Your task to perform on an android device: turn on the 24-hour format for clock Image 0: 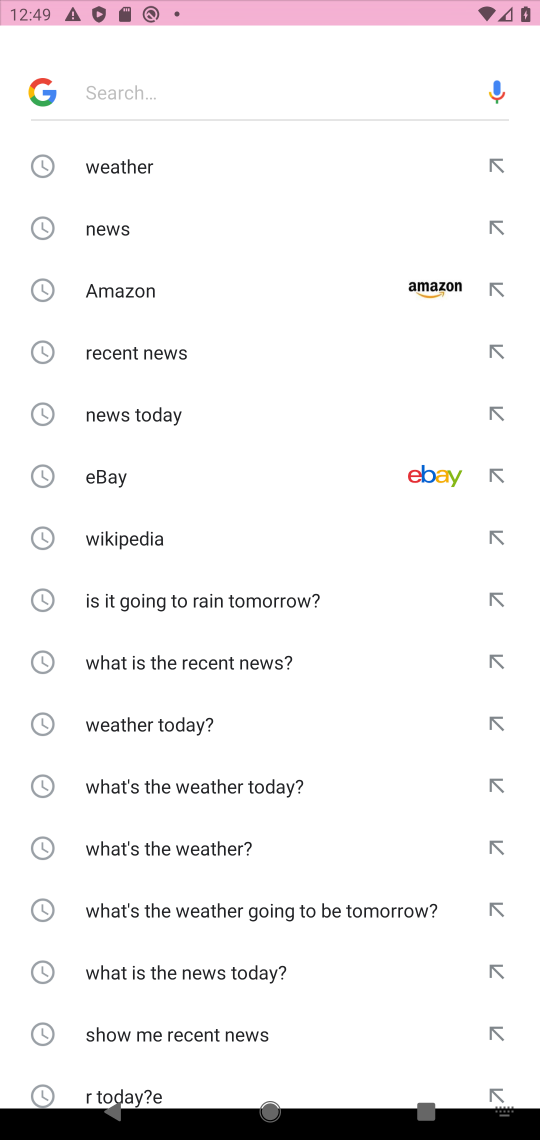
Step 0: press home button
Your task to perform on an android device: turn on the 24-hour format for clock Image 1: 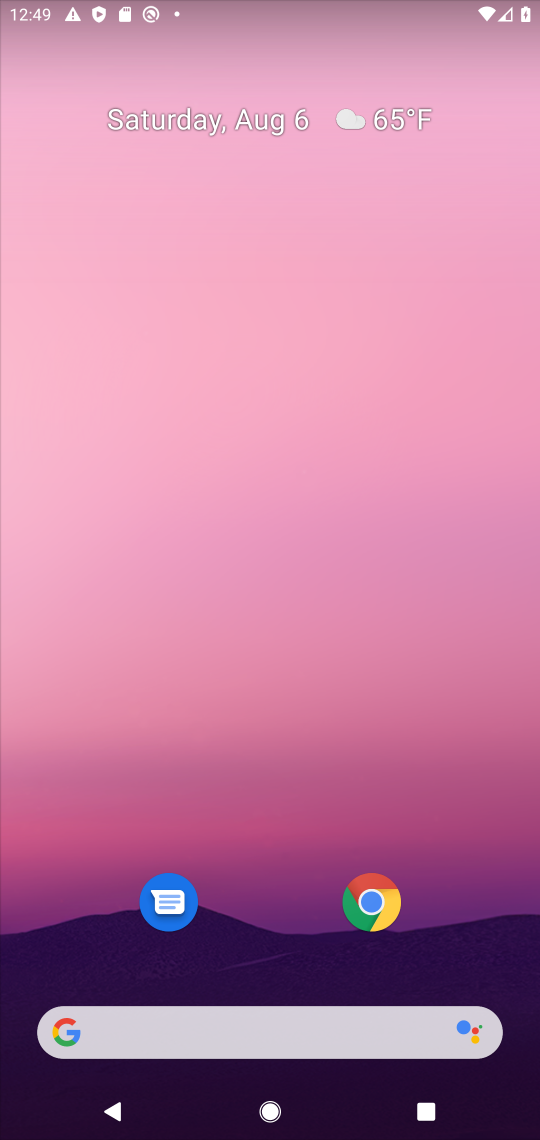
Step 1: click (255, 288)
Your task to perform on an android device: turn on the 24-hour format for clock Image 2: 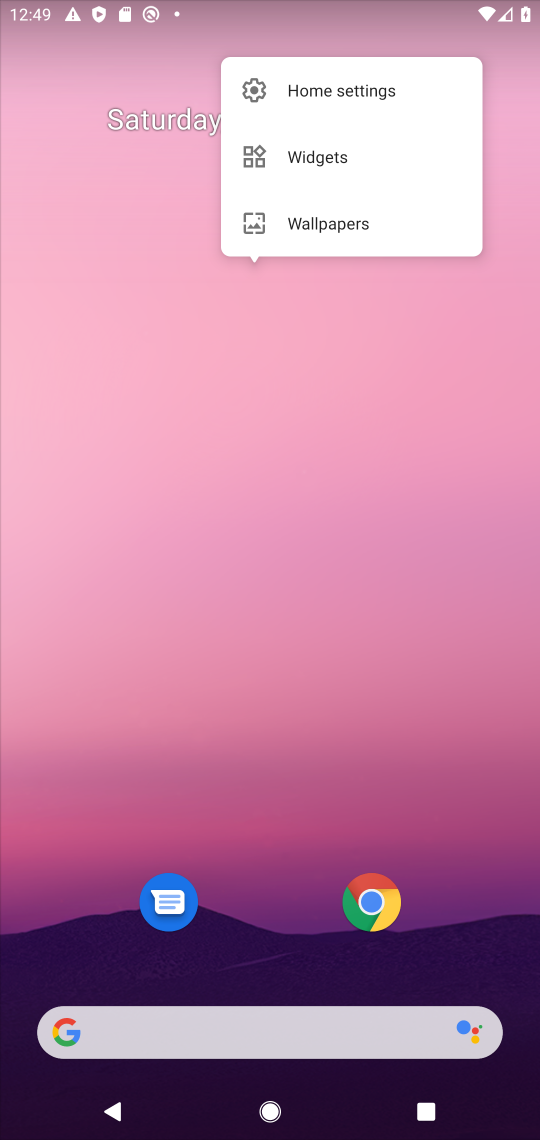
Step 2: drag from (243, 569) to (280, 205)
Your task to perform on an android device: turn on the 24-hour format for clock Image 3: 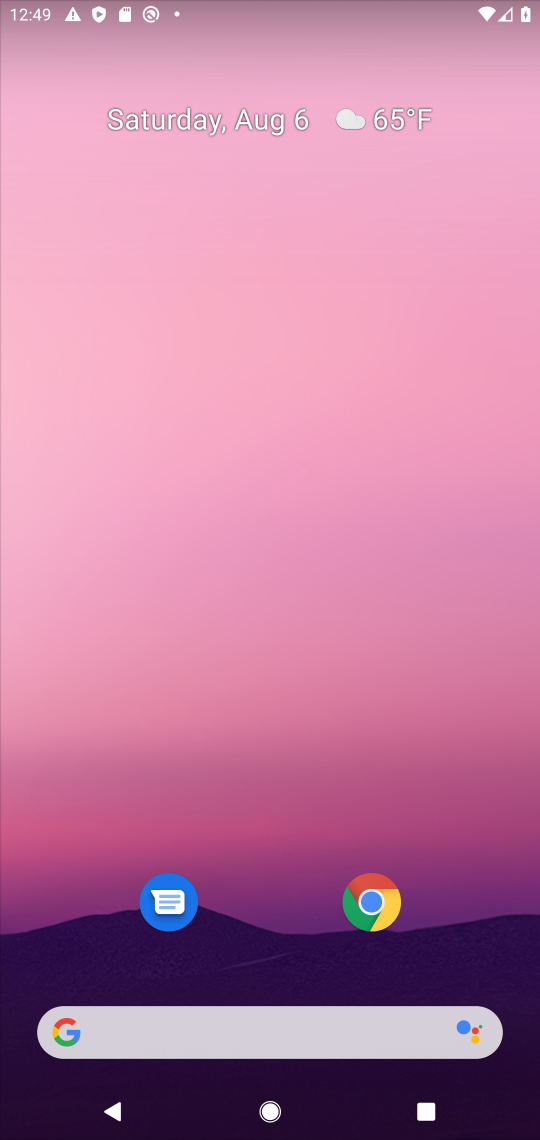
Step 3: click (327, 472)
Your task to perform on an android device: turn on the 24-hour format for clock Image 4: 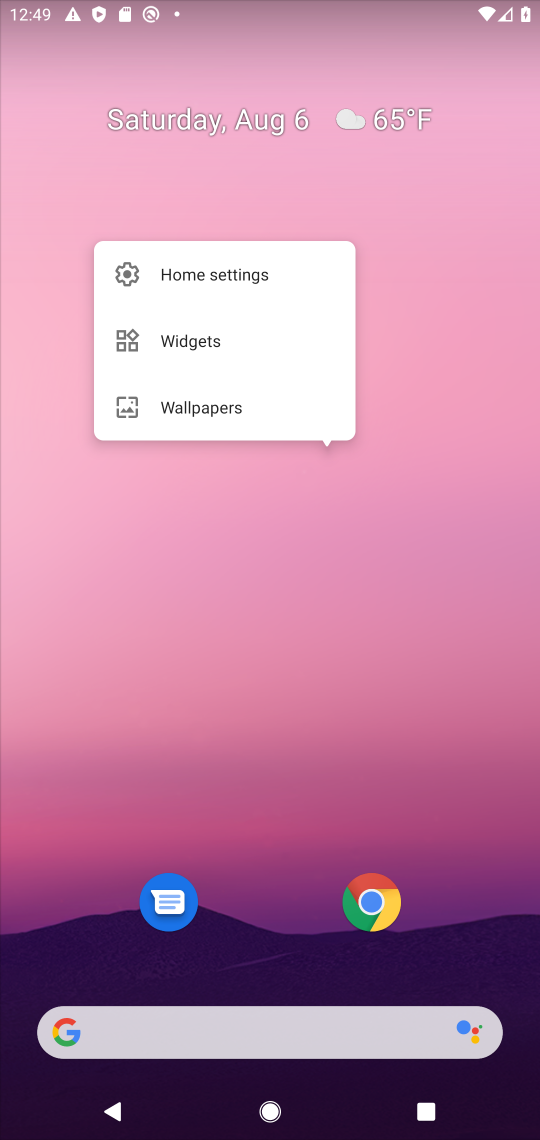
Step 4: drag from (279, 821) to (295, 167)
Your task to perform on an android device: turn on the 24-hour format for clock Image 5: 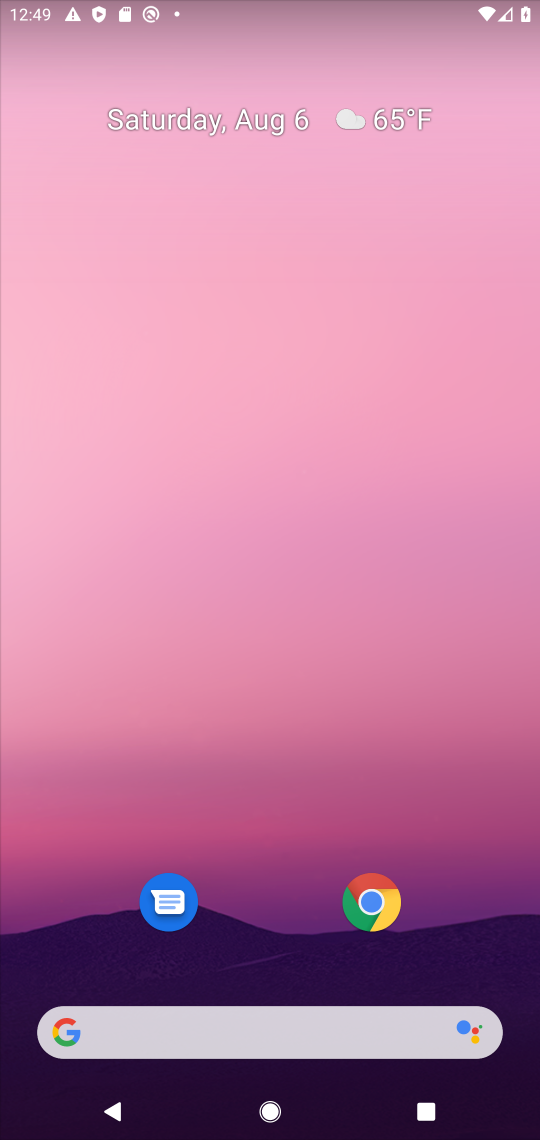
Step 5: drag from (268, 887) to (231, 9)
Your task to perform on an android device: turn on the 24-hour format for clock Image 6: 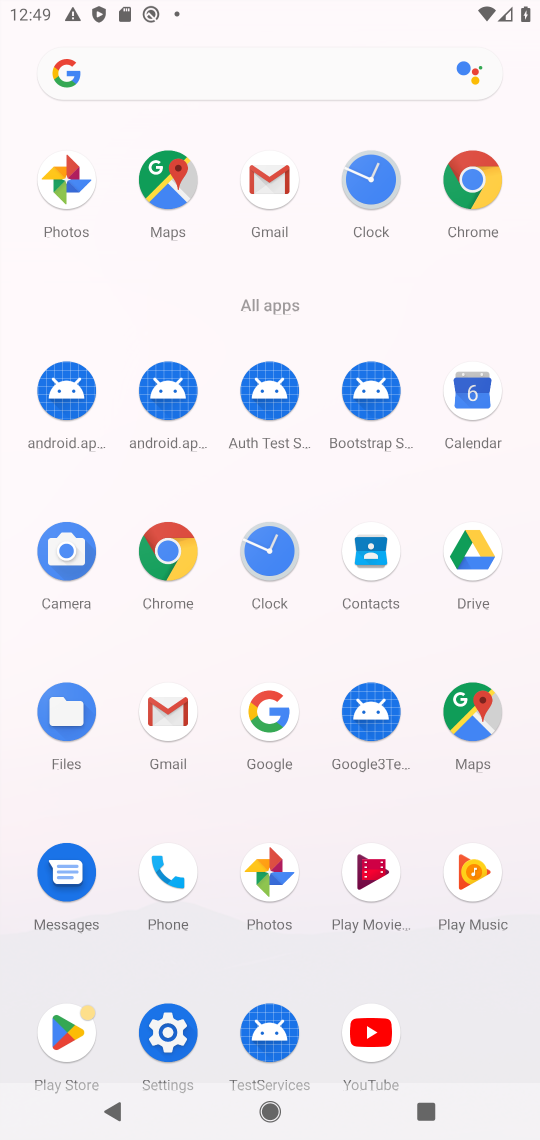
Step 6: click (267, 555)
Your task to perform on an android device: turn on the 24-hour format for clock Image 7: 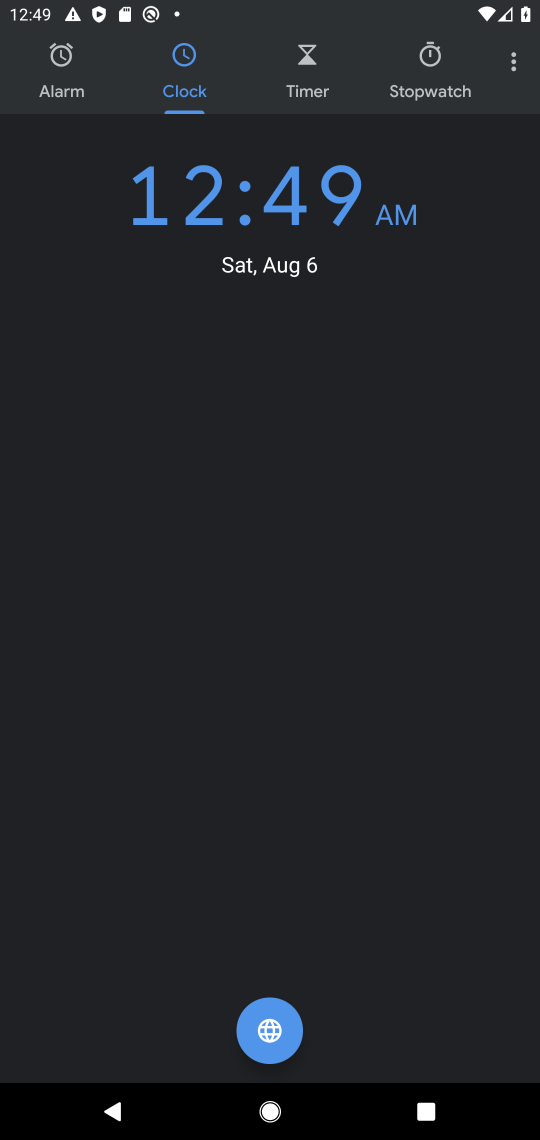
Step 7: click (511, 78)
Your task to perform on an android device: turn on the 24-hour format for clock Image 8: 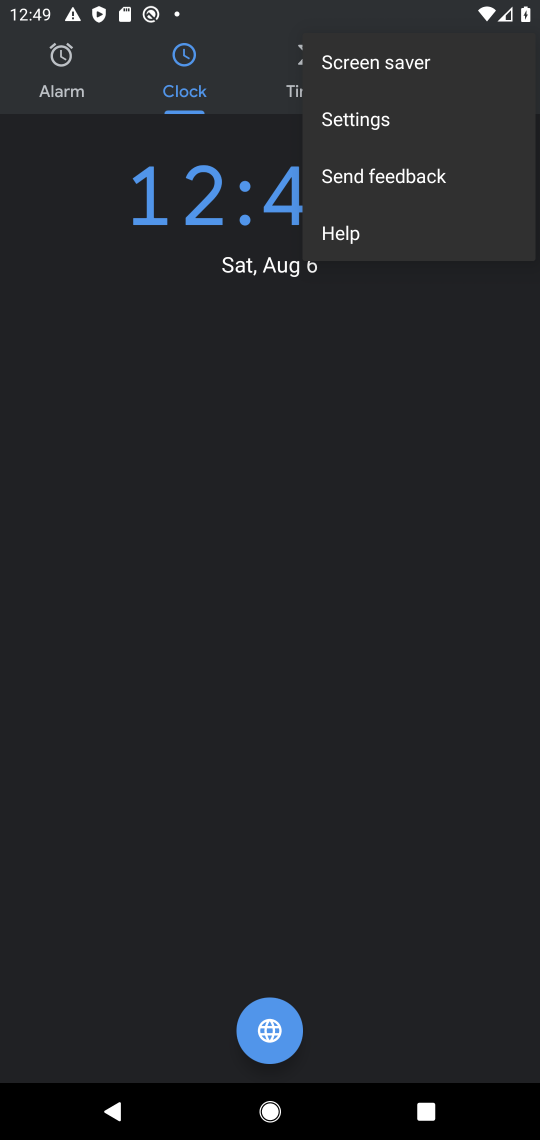
Step 8: click (356, 112)
Your task to perform on an android device: turn on the 24-hour format for clock Image 9: 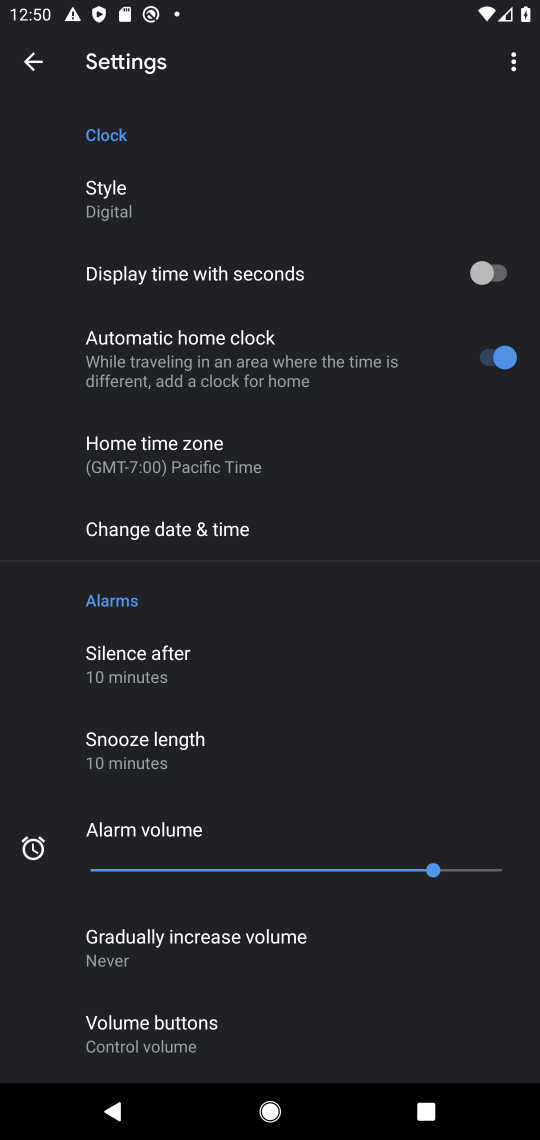
Step 9: click (191, 518)
Your task to perform on an android device: turn on the 24-hour format for clock Image 10: 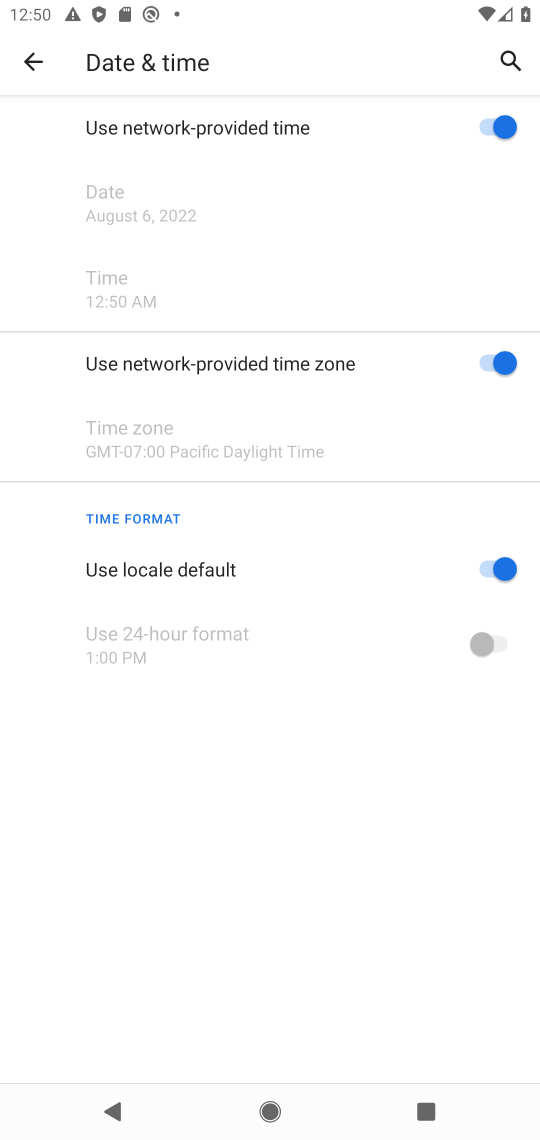
Step 10: click (505, 555)
Your task to perform on an android device: turn on the 24-hour format for clock Image 11: 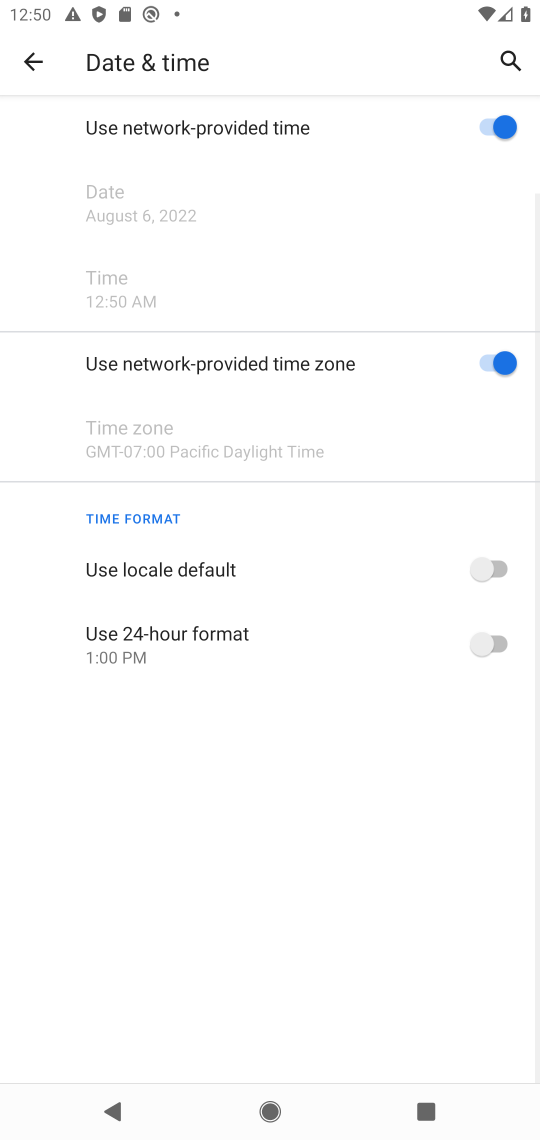
Step 11: click (492, 648)
Your task to perform on an android device: turn on the 24-hour format for clock Image 12: 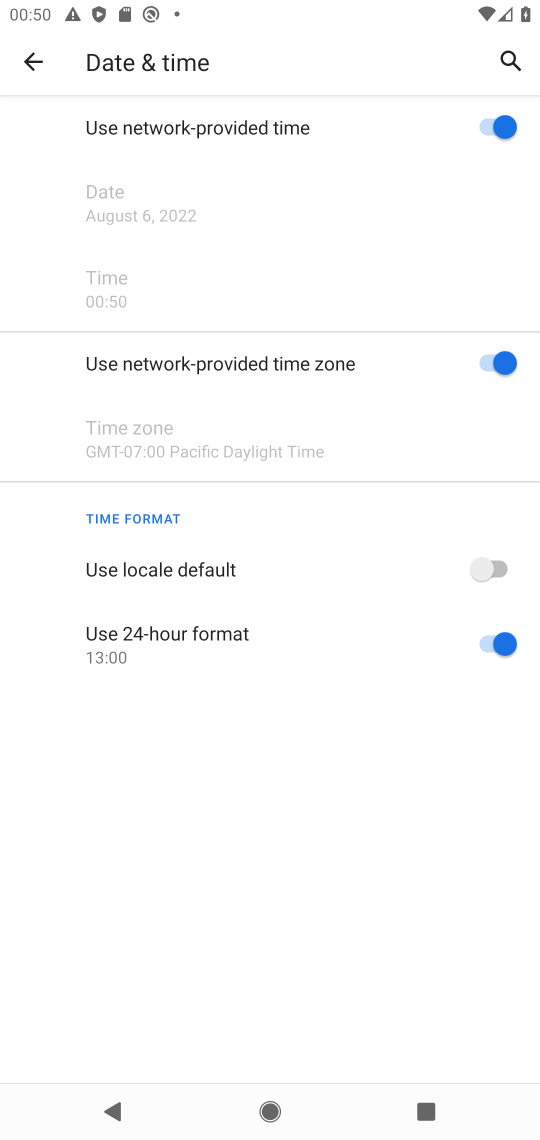
Step 12: task complete